Your task to perform on an android device: Go to notification settings Image 0: 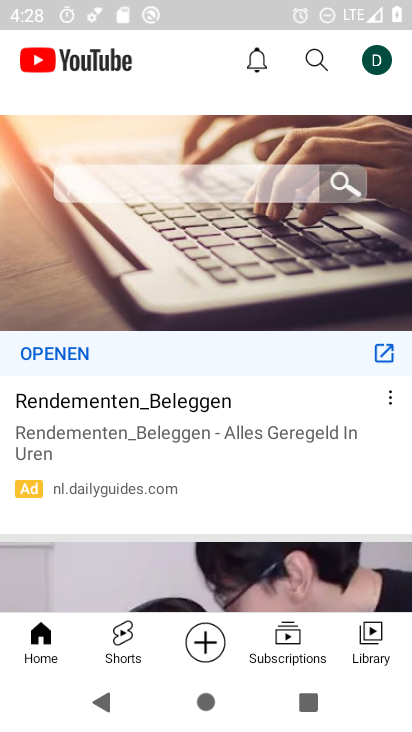
Step 0: press home button
Your task to perform on an android device: Go to notification settings Image 1: 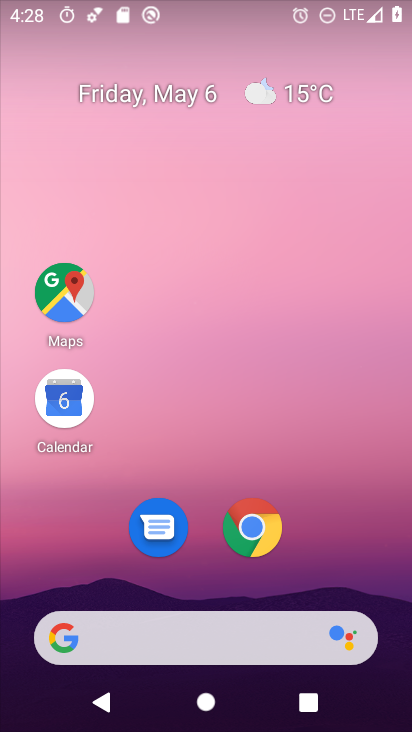
Step 1: drag from (338, 524) to (289, 91)
Your task to perform on an android device: Go to notification settings Image 2: 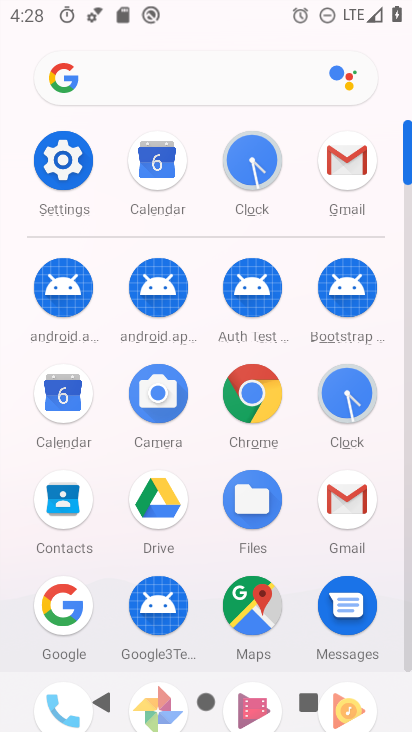
Step 2: click (84, 157)
Your task to perform on an android device: Go to notification settings Image 3: 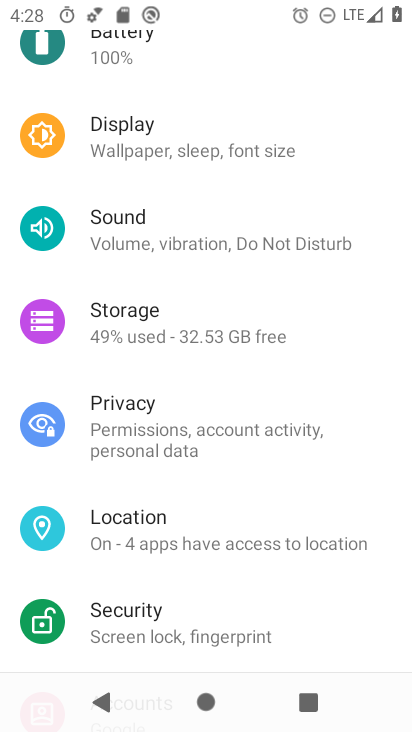
Step 3: drag from (251, 604) to (276, 198)
Your task to perform on an android device: Go to notification settings Image 4: 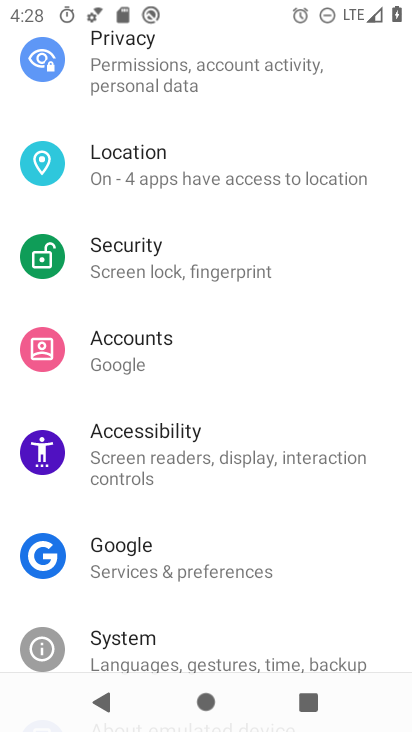
Step 4: drag from (222, 156) to (203, 642)
Your task to perform on an android device: Go to notification settings Image 5: 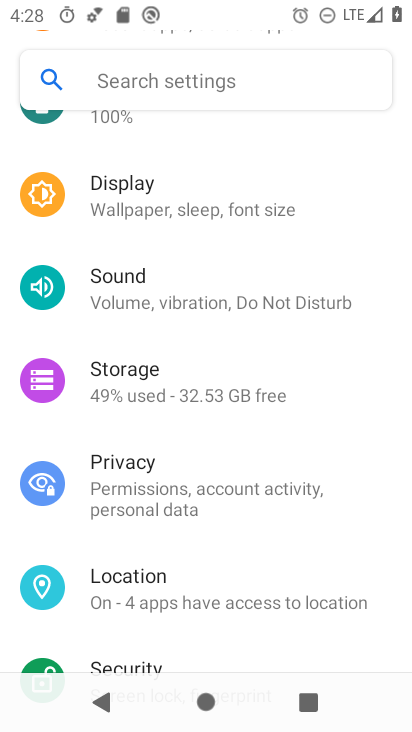
Step 5: drag from (214, 231) to (257, 654)
Your task to perform on an android device: Go to notification settings Image 6: 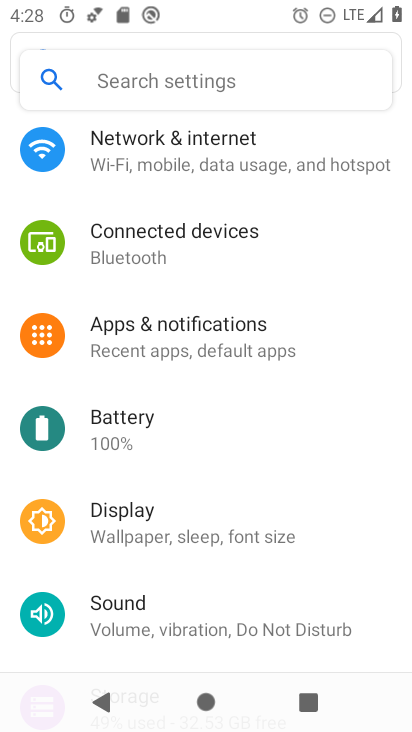
Step 6: click (178, 331)
Your task to perform on an android device: Go to notification settings Image 7: 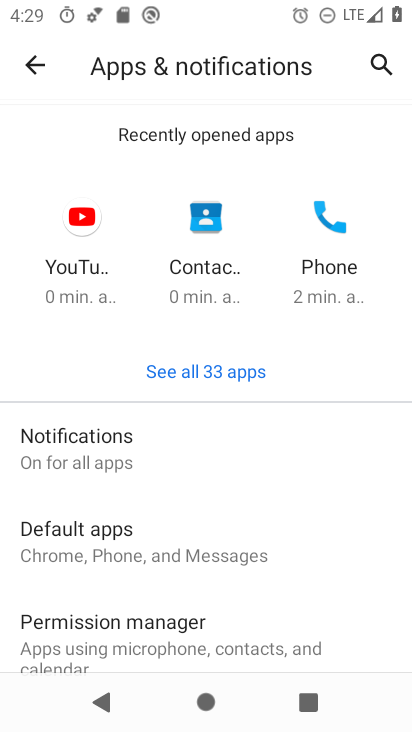
Step 7: task complete